Your task to perform on an android device: Toggle the flashlight Image 0: 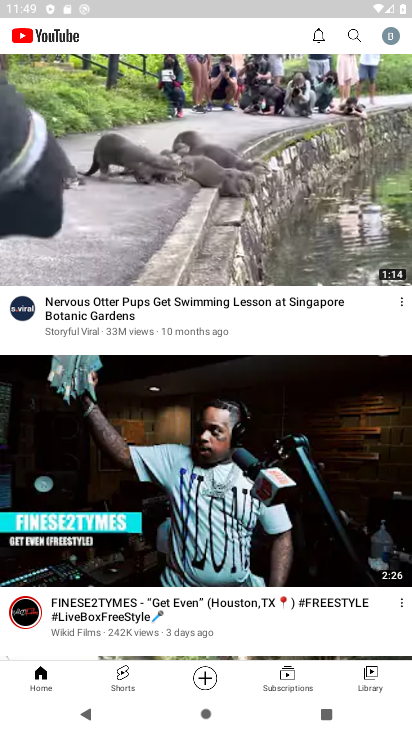
Step 0: press back button
Your task to perform on an android device: Toggle the flashlight Image 1: 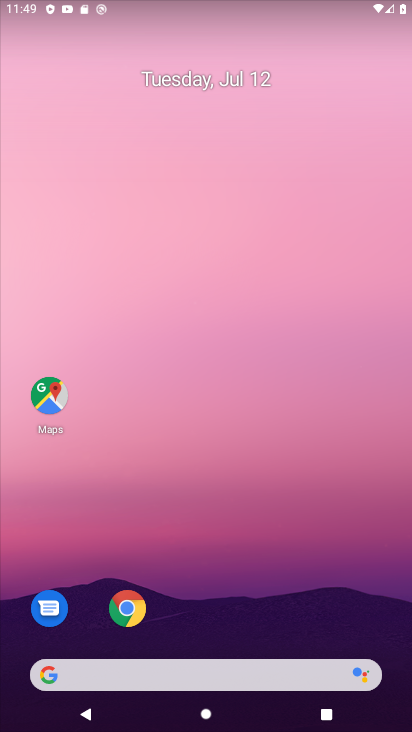
Step 1: drag from (211, 585) to (254, 9)
Your task to perform on an android device: Toggle the flashlight Image 2: 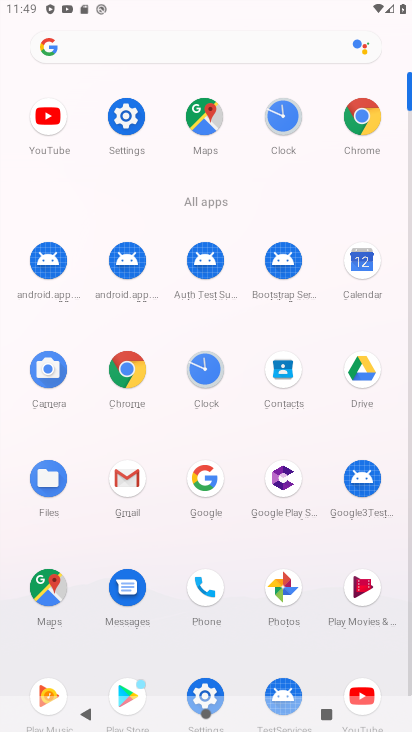
Step 2: click (130, 108)
Your task to perform on an android device: Toggle the flashlight Image 3: 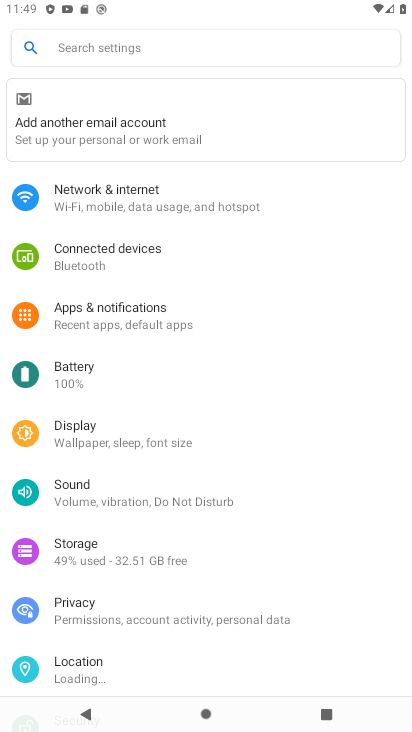
Step 3: click (139, 46)
Your task to perform on an android device: Toggle the flashlight Image 4: 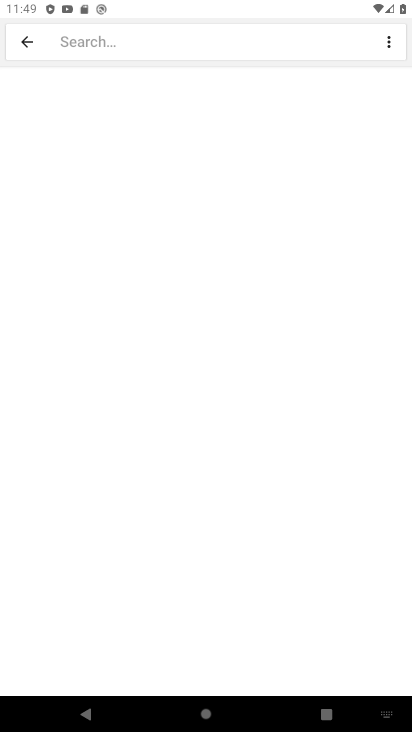
Step 4: type "flashlight"
Your task to perform on an android device: Toggle the flashlight Image 5: 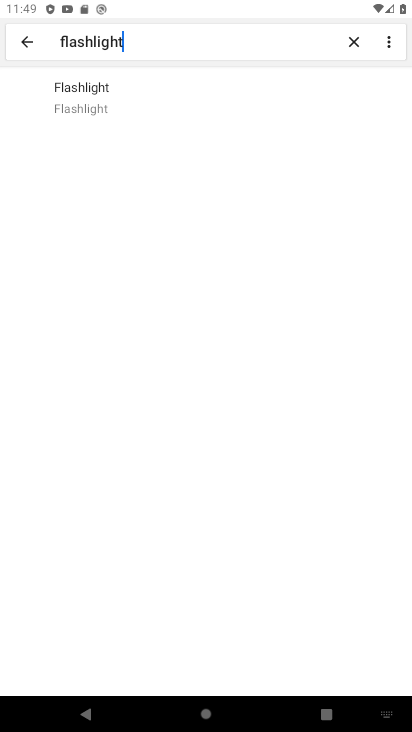
Step 5: click (92, 93)
Your task to perform on an android device: Toggle the flashlight Image 6: 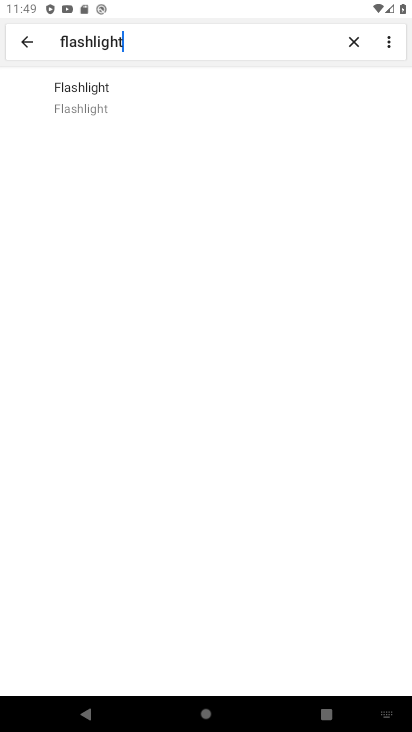
Step 6: click (92, 94)
Your task to perform on an android device: Toggle the flashlight Image 7: 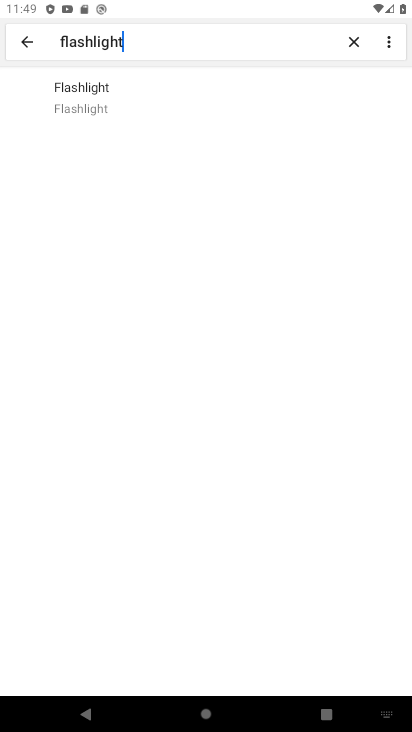
Step 7: task complete